Your task to perform on an android device: find which apps use the phone's location Image 0: 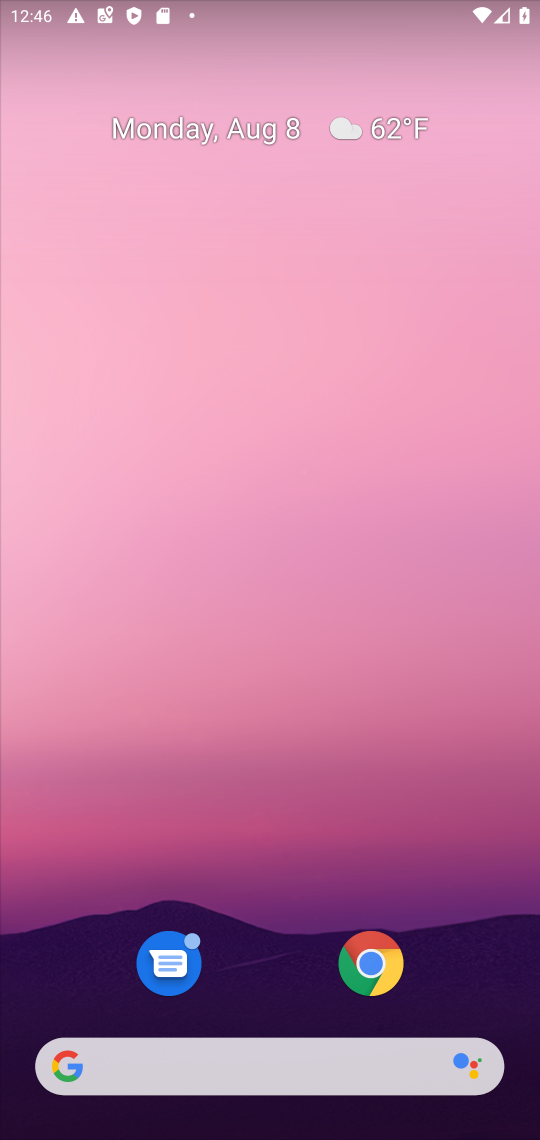
Step 0: drag from (481, 994) to (275, 46)
Your task to perform on an android device: find which apps use the phone's location Image 1: 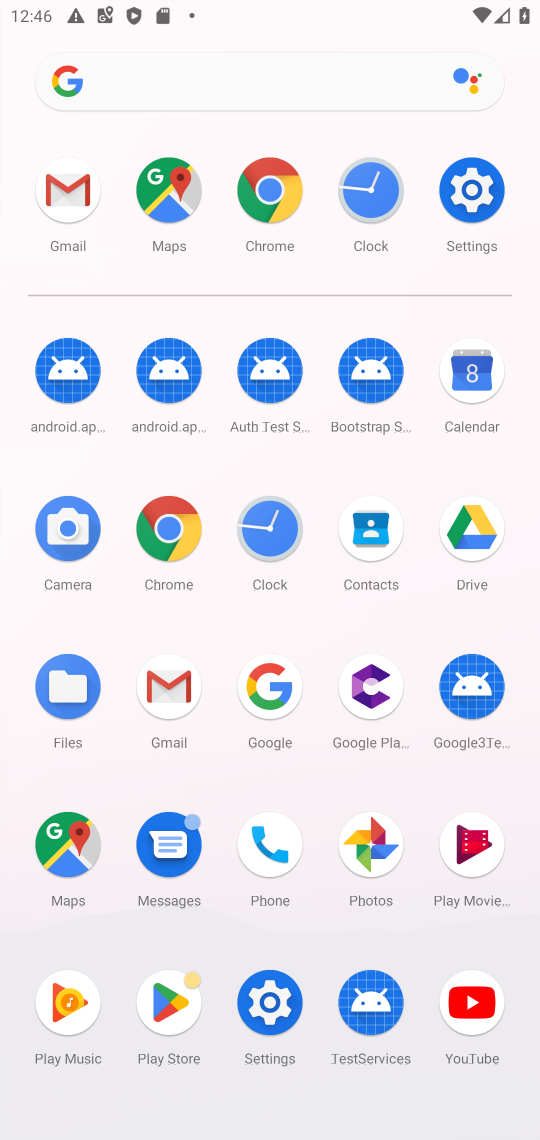
Step 1: click (282, 1021)
Your task to perform on an android device: find which apps use the phone's location Image 2: 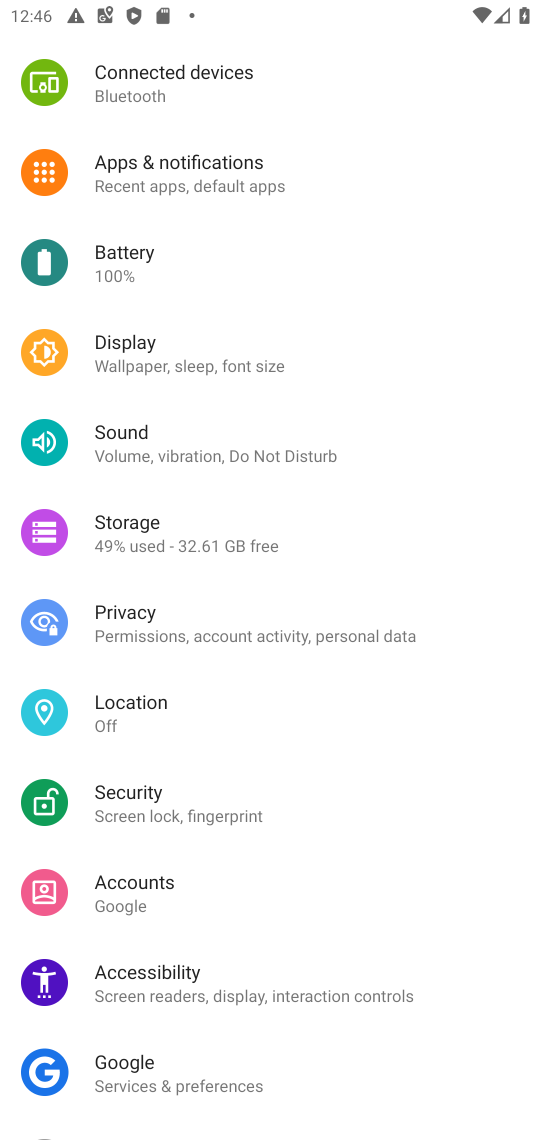
Step 2: click (175, 741)
Your task to perform on an android device: find which apps use the phone's location Image 3: 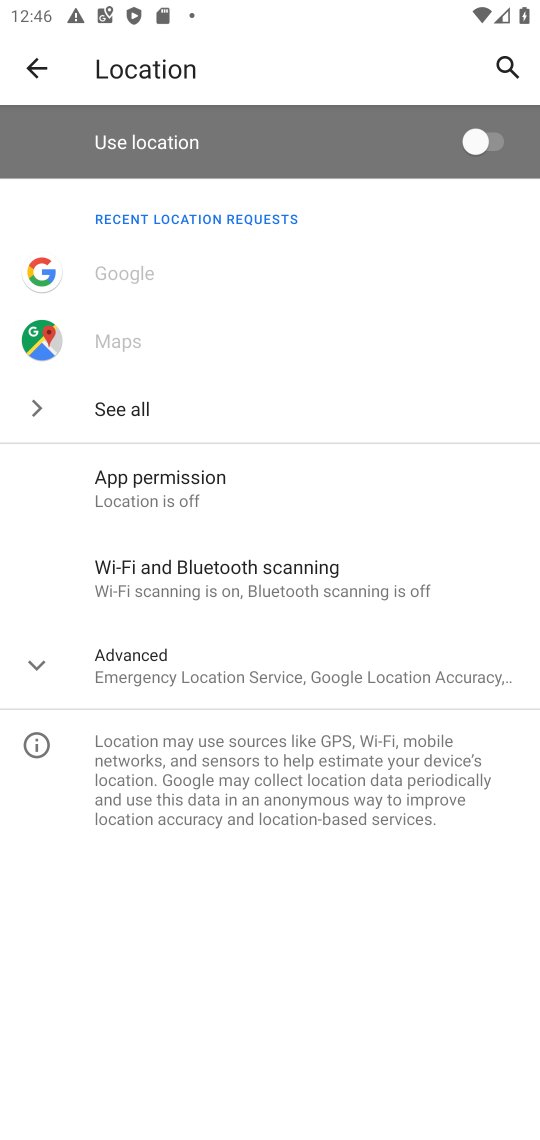
Step 3: click (109, 489)
Your task to perform on an android device: find which apps use the phone's location Image 4: 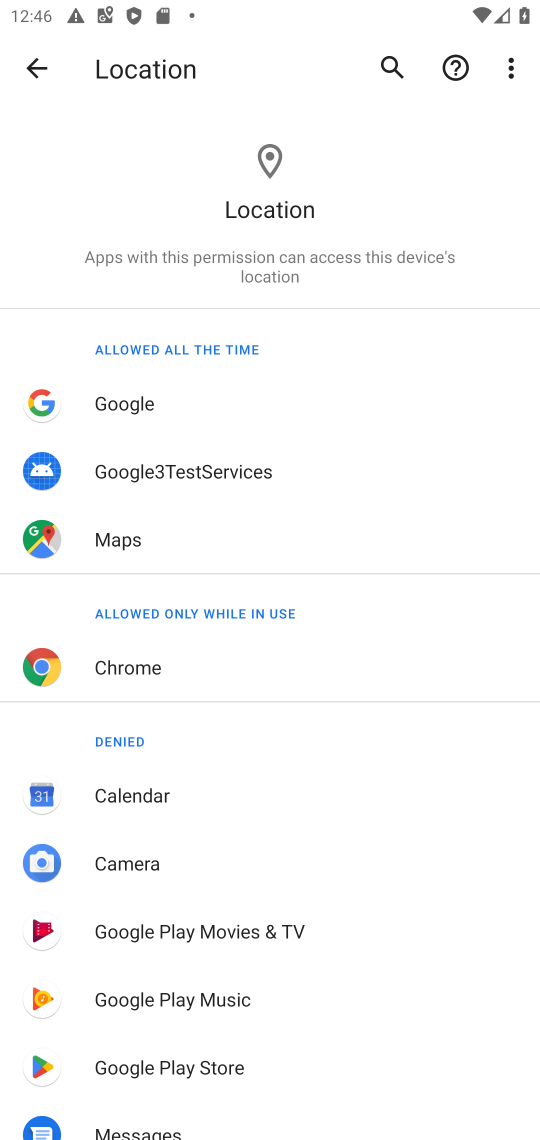
Step 4: drag from (133, 978) to (160, 427)
Your task to perform on an android device: find which apps use the phone's location Image 5: 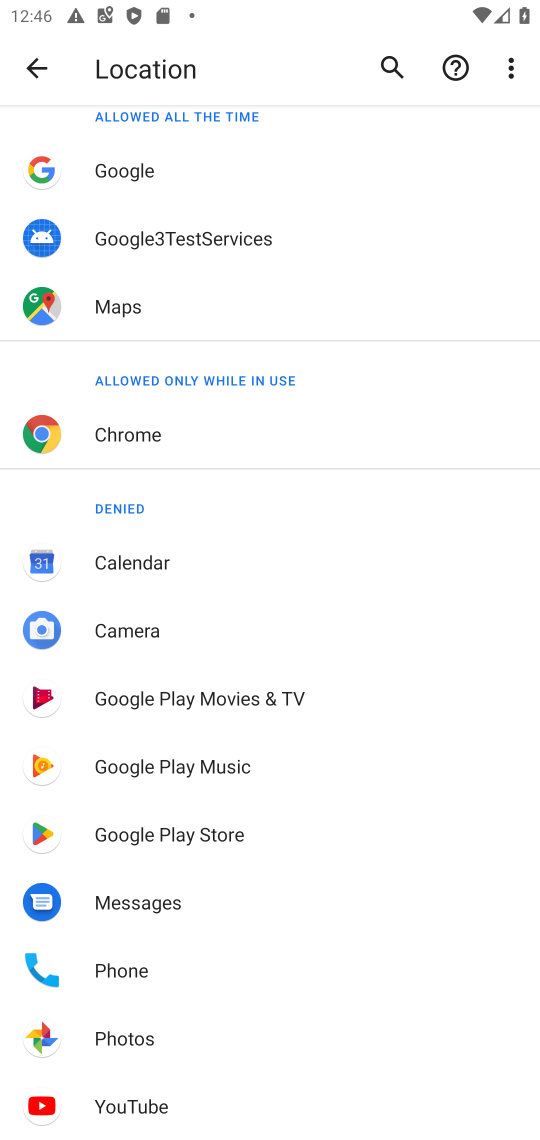
Step 5: click (112, 969)
Your task to perform on an android device: find which apps use the phone's location Image 6: 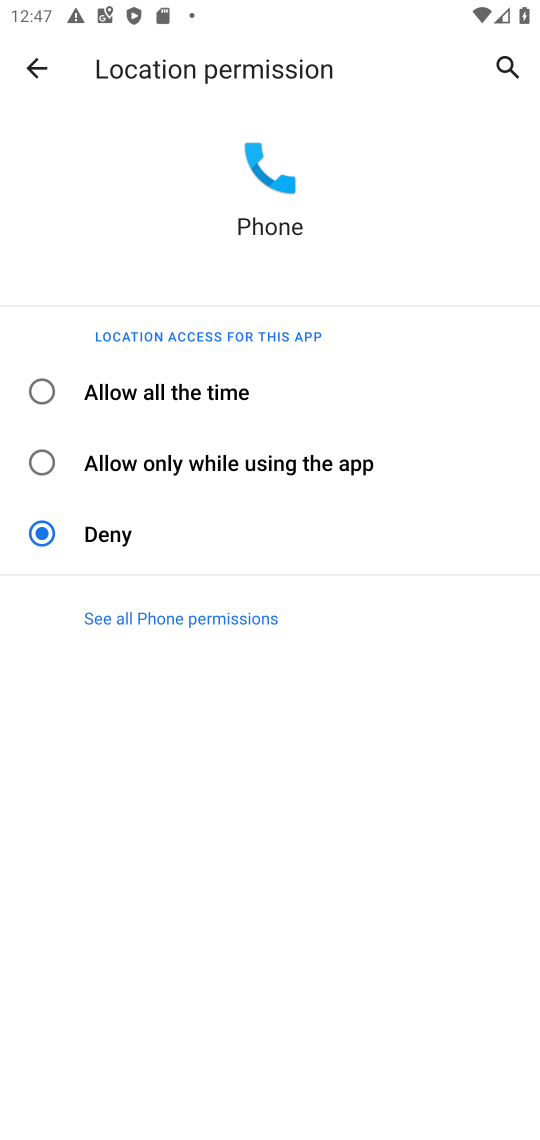
Step 6: click (126, 402)
Your task to perform on an android device: find which apps use the phone's location Image 7: 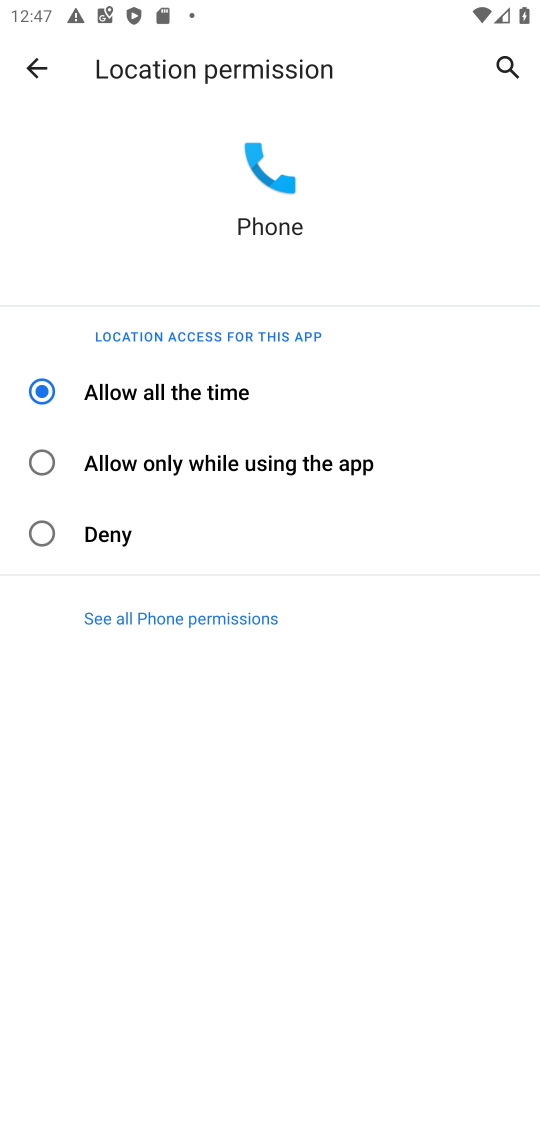
Step 7: task complete